Your task to perform on an android device: Search for Italian restaurants on Maps Image 0: 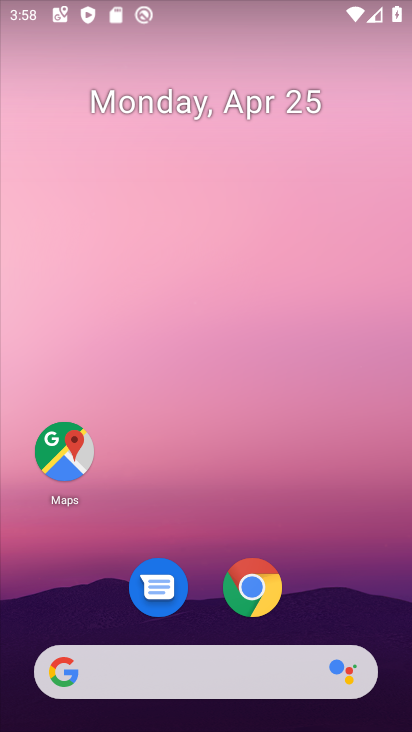
Step 0: click (64, 448)
Your task to perform on an android device: Search for Italian restaurants on Maps Image 1: 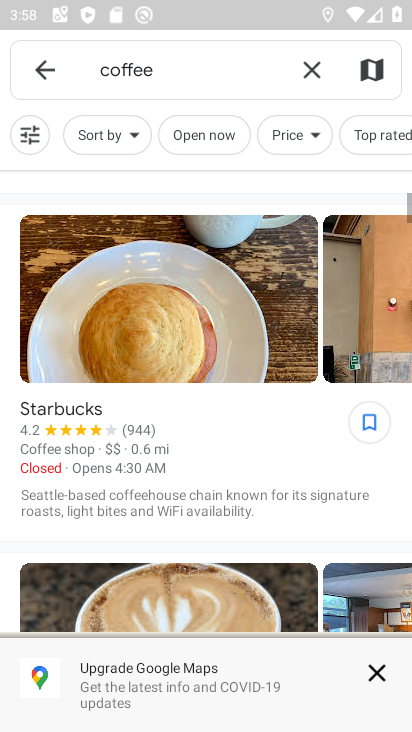
Step 1: click (311, 78)
Your task to perform on an android device: Search for Italian restaurants on Maps Image 2: 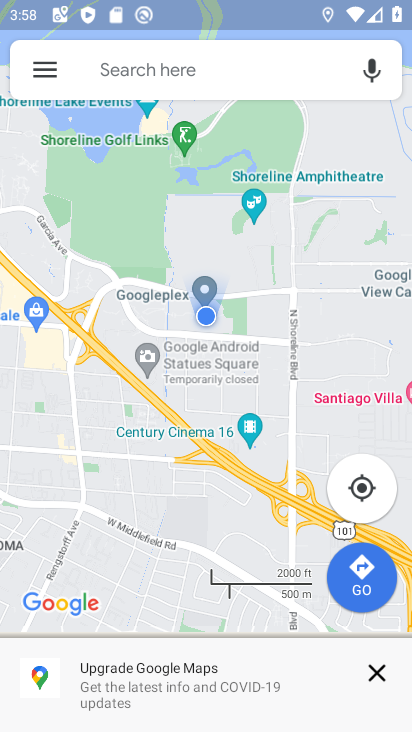
Step 2: click (119, 71)
Your task to perform on an android device: Search for Italian restaurants on Maps Image 3: 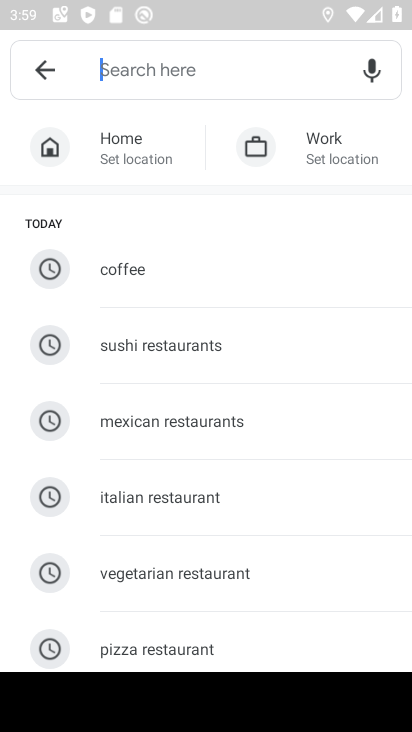
Step 3: type "italian restaurant"
Your task to perform on an android device: Search for Italian restaurants on Maps Image 4: 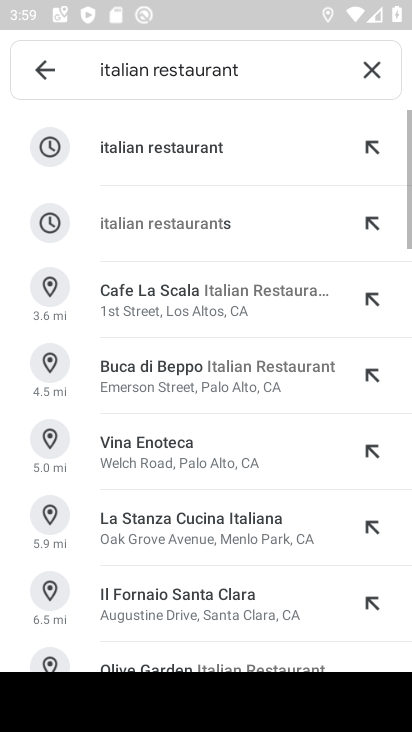
Step 4: click (165, 150)
Your task to perform on an android device: Search for Italian restaurants on Maps Image 5: 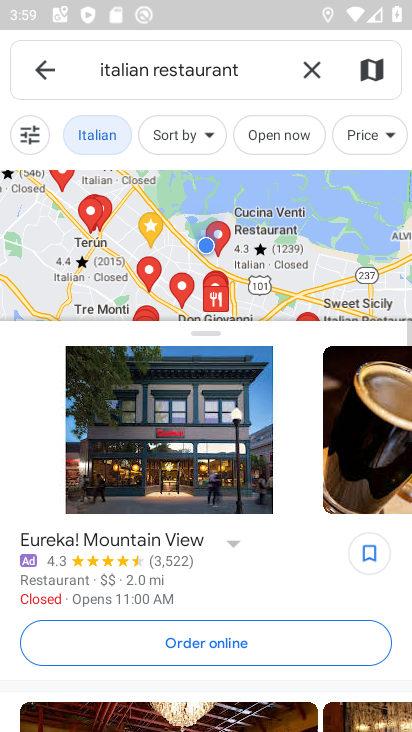
Step 5: task complete